Your task to perform on an android device: open app "Google Calendar" (install if not already installed) Image 0: 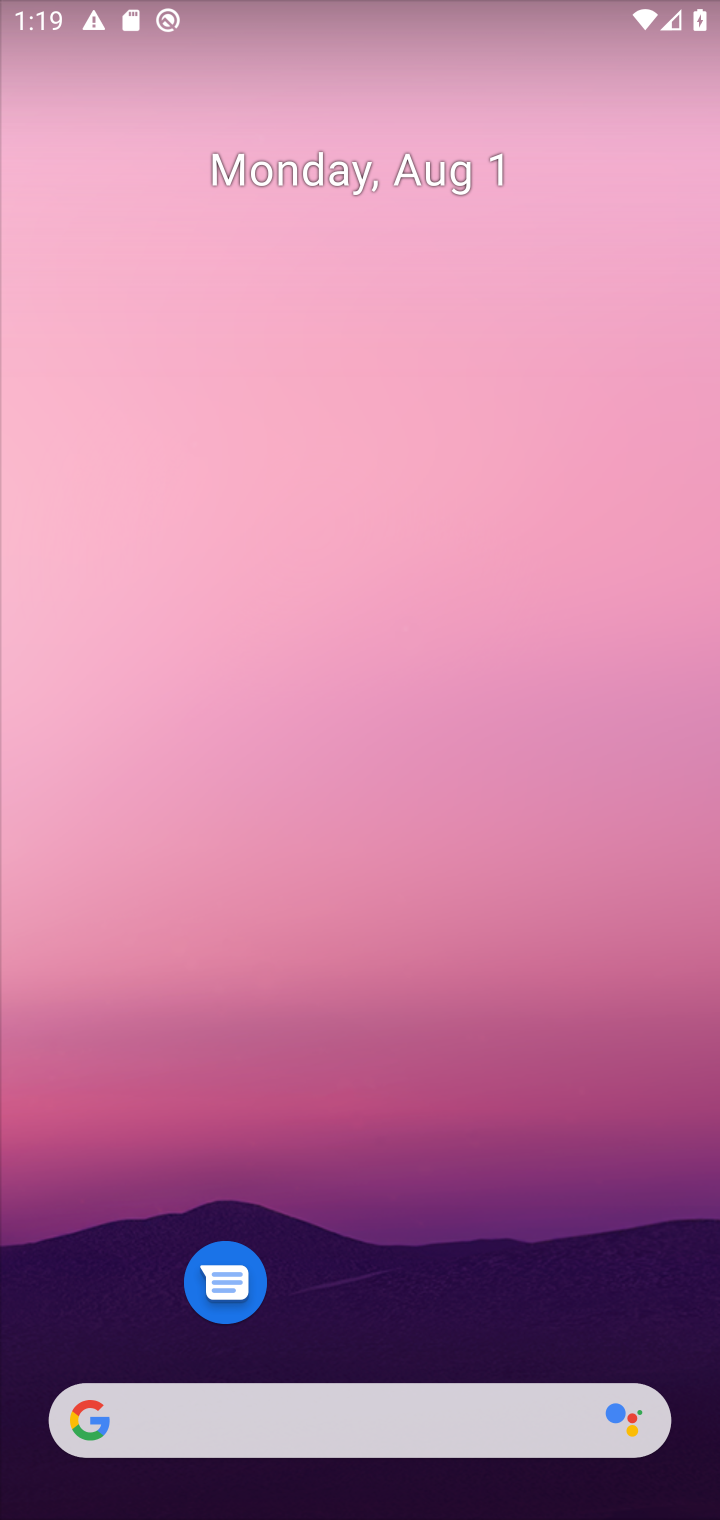
Step 0: drag from (359, 1311) to (422, 60)
Your task to perform on an android device: open app "Google Calendar" (install if not already installed) Image 1: 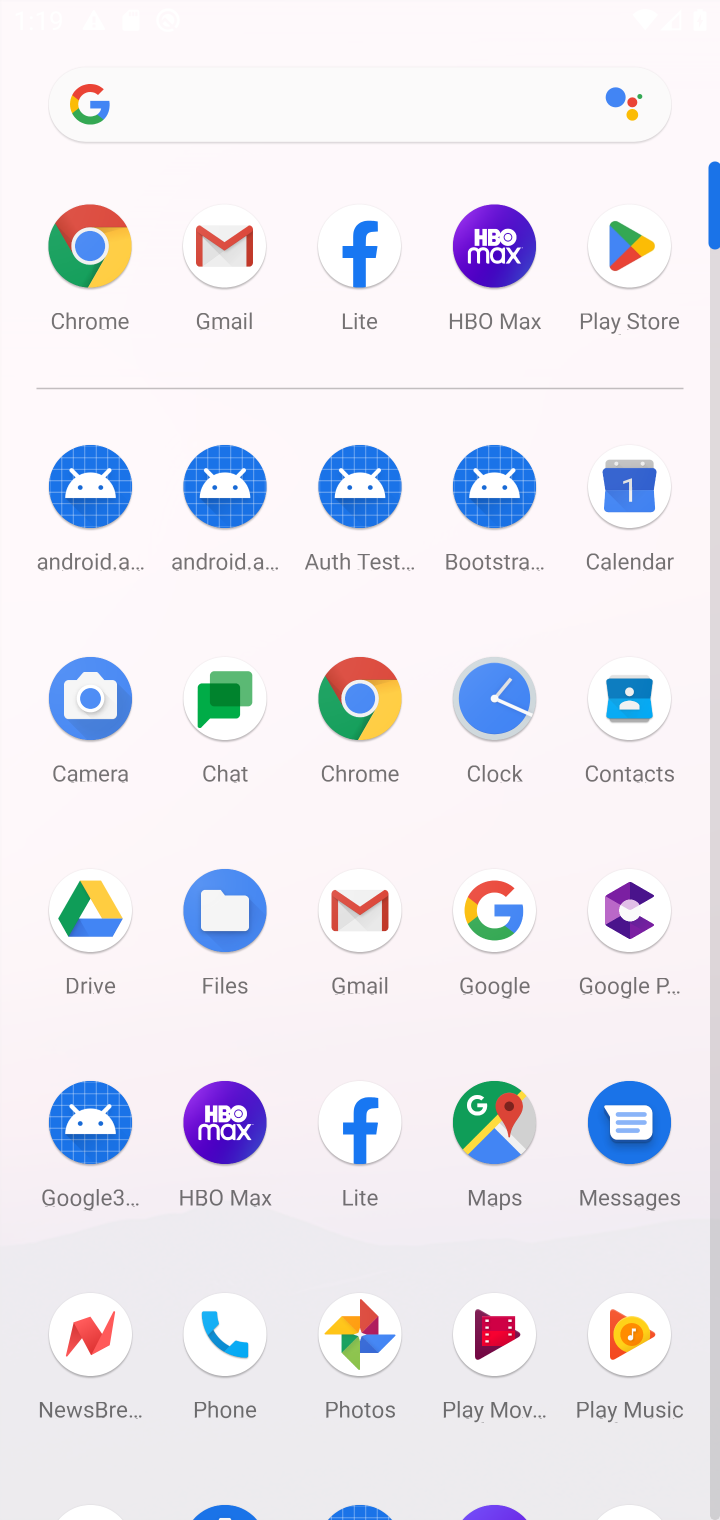
Step 1: click (644, 592)
Your task to perform on an android device: open app "Google Calendar" (install if not already installed) Image 2: 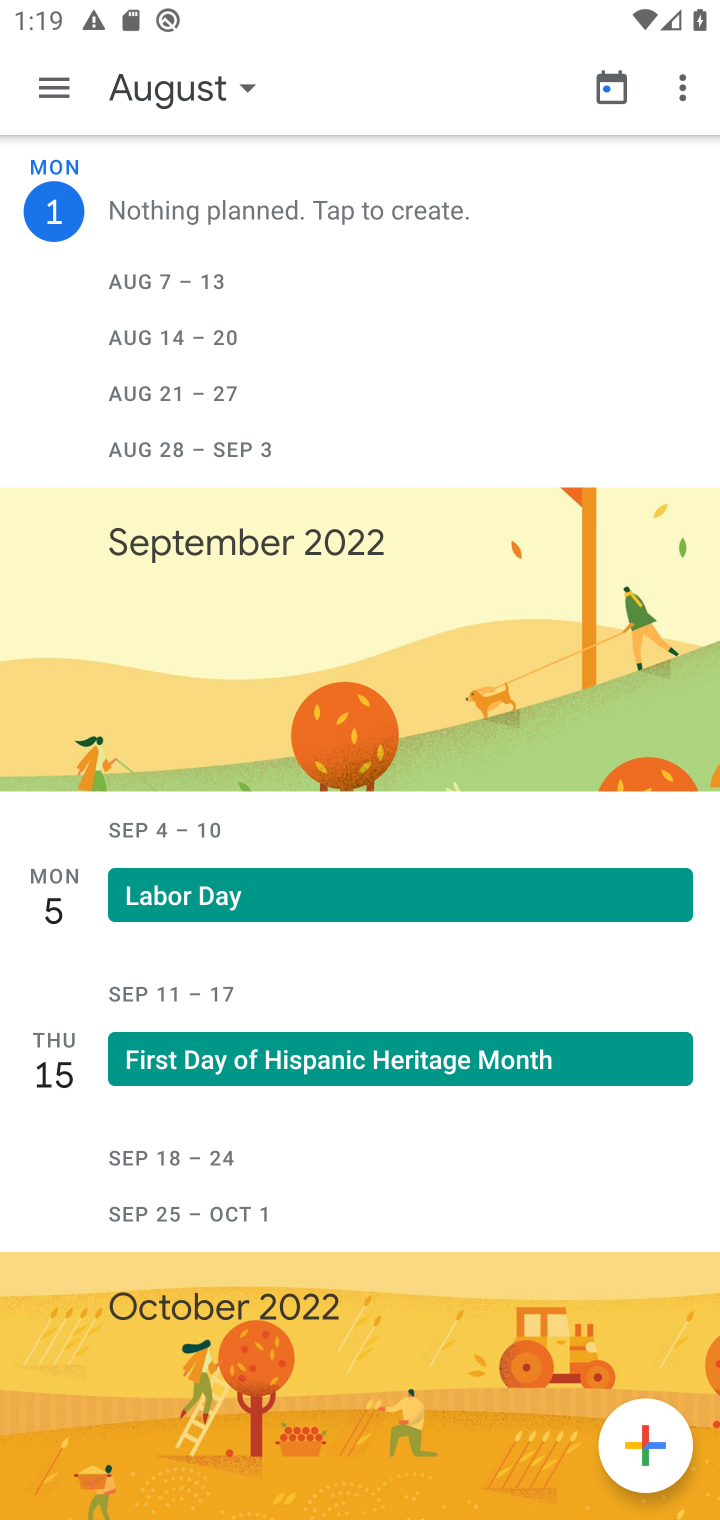
Step 2: task complete